Your task to perform on an android device: turn vacation reply on in the gmail app Image 0: 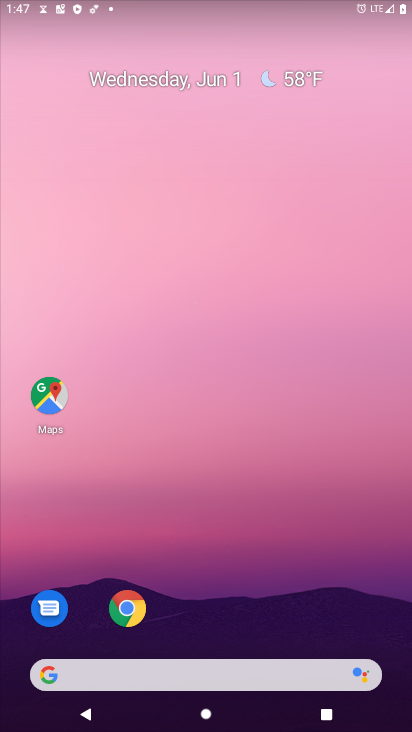
Step 0: drag from (207, 583) to (258, 256)
Your task to perform on an android device: turn vacation reply on in the gmail app Image 1: 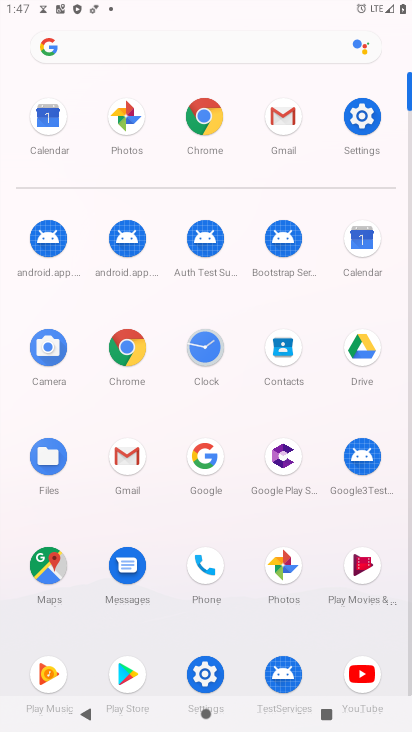
Step 1: click (279, 141)
Your task to perform on an android device: turn vacation reply on in the gmail app Image 2: 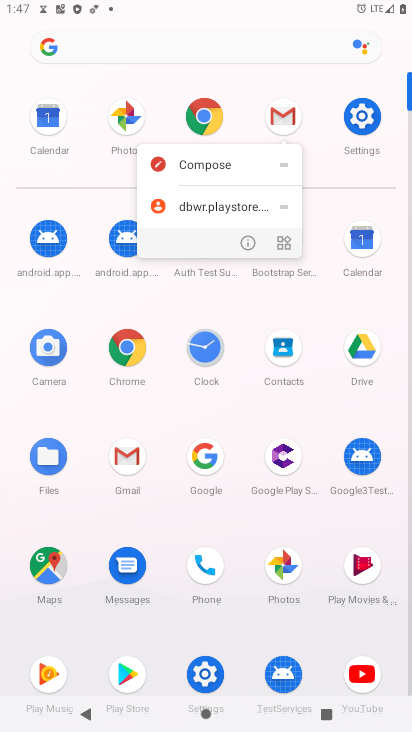
Step 2: click (281, 138)
Your task to perform on an android device: turn vacation reply on in the gmail app Image 3: 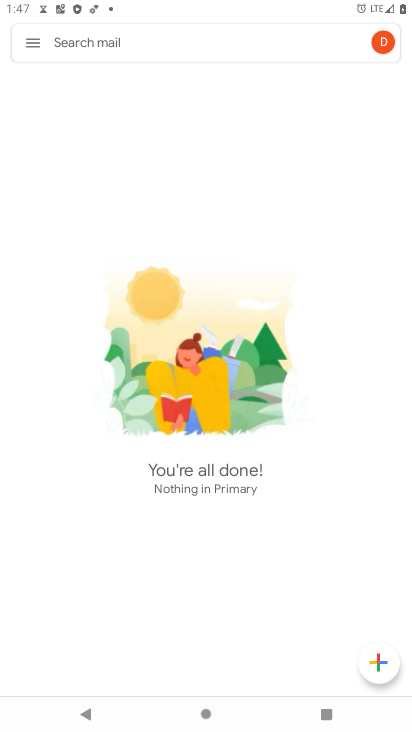
Step 3: click (46, 49)
Your task to perform on an android device: turn vacation reply on in the gmail app Image 4: 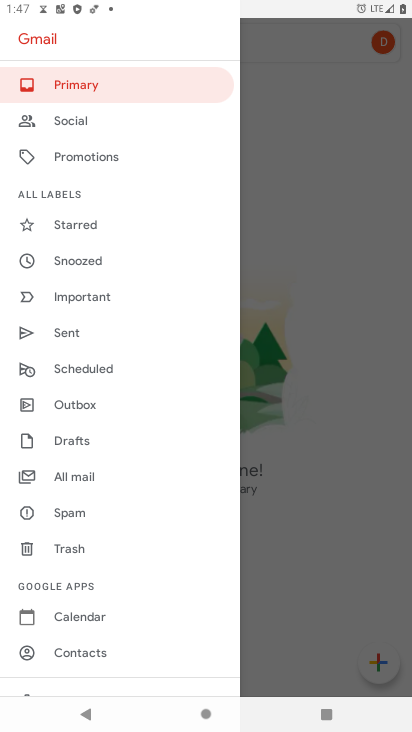
Step 4: drag from (66, 554) to (87, 86)
Your task to perform on an android device: turn vacation reply on in the gmail app Image 5: 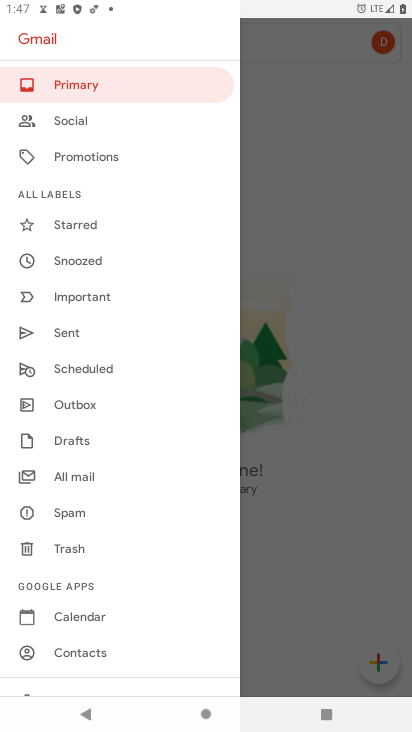
Step 5: drag from (120, 626) to (158, 148)
Your task to perform on an android device: turn vacation reply on in the gmail app Image 6: 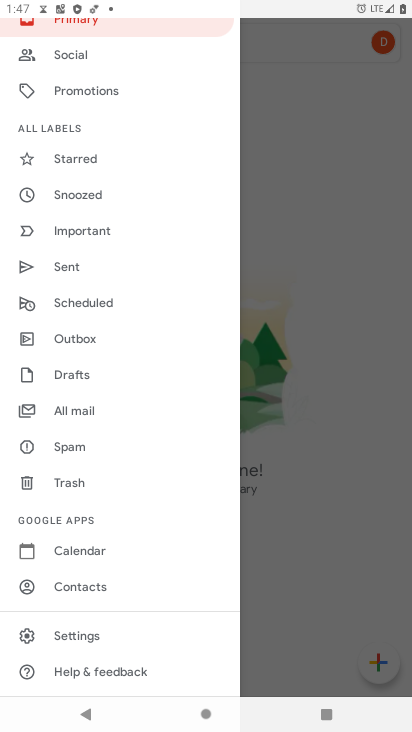
Step 6: click (144, 627)
Your task to perform on an android device: turn vacation reply on in the gmail app Image 7: 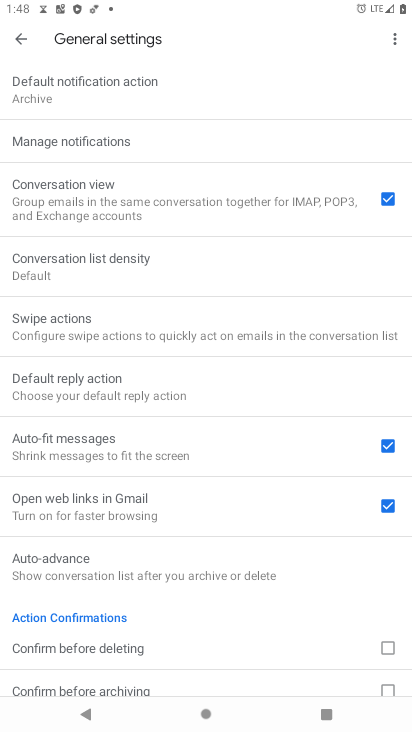
Step 7: drag from (107, 506) to (174, 197)
Your task to perform on an android device: turn vacation reply on in the gmail app Image 8: 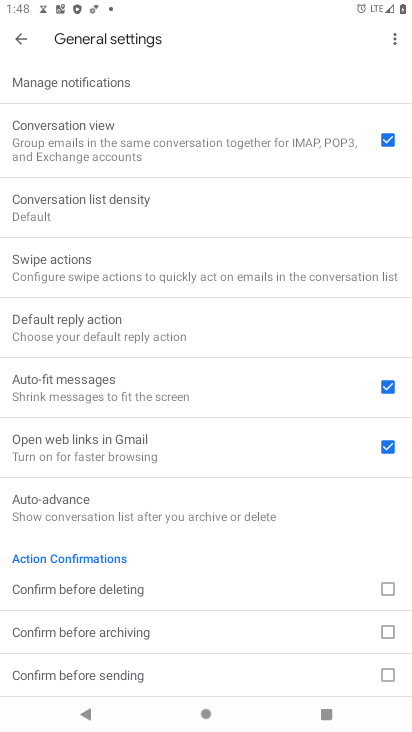
Step 8: drag from (194, 174) to (219, 583)
Your task to perform on an android device: turn vacation reply on in the gmail app Image 9: 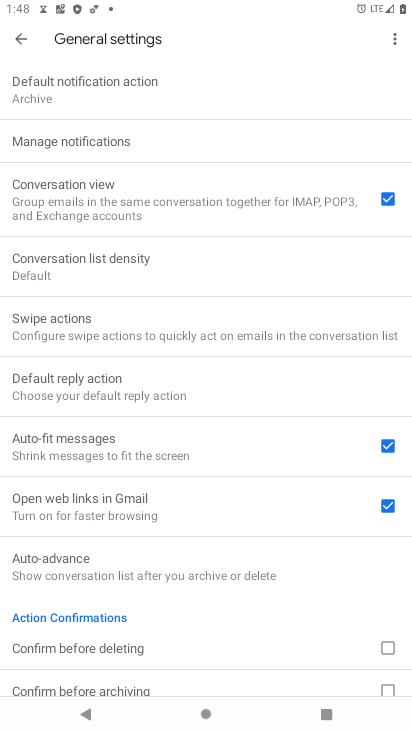
Step 9: click (384, 27)
Your task to perform on an android device: turn vacation reply on in the gmail app Image 10: 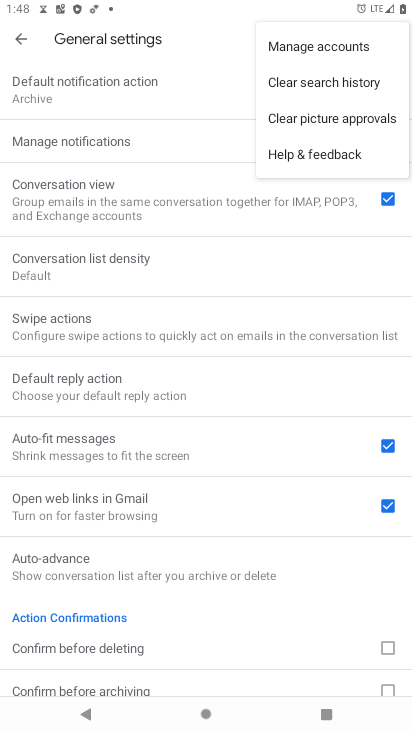
Step 10: task complete